Your task to perform on an android device: set the timer Image 0: 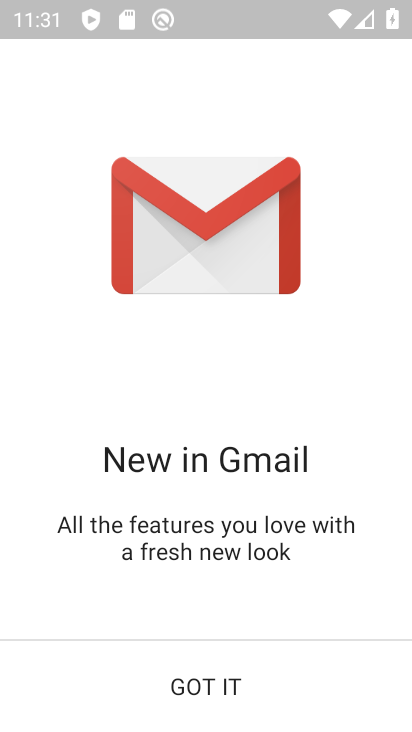
Step 0: press home button
Your task to perform on an android device: set the timer Image 1: 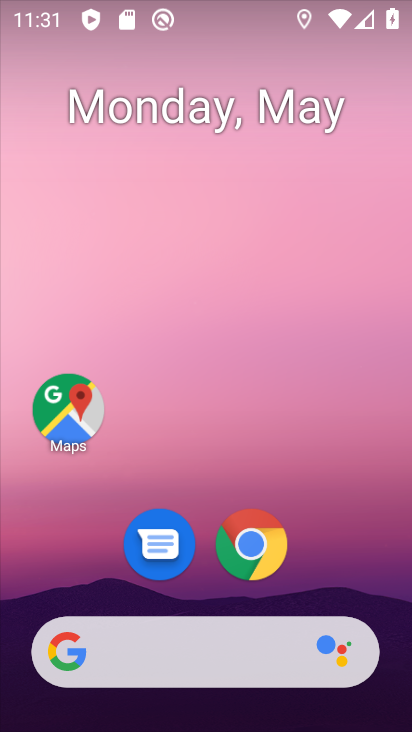
Step 1: drag from (332, 541) to (236, 41)
Your task to perform on an android device: set the timer Image 2: 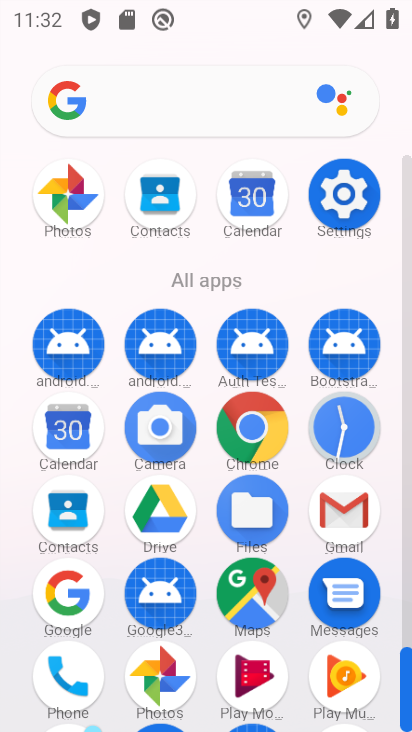
Step 2: click (348, 417)
Your task to perform on an android device: set the timer Image 3: 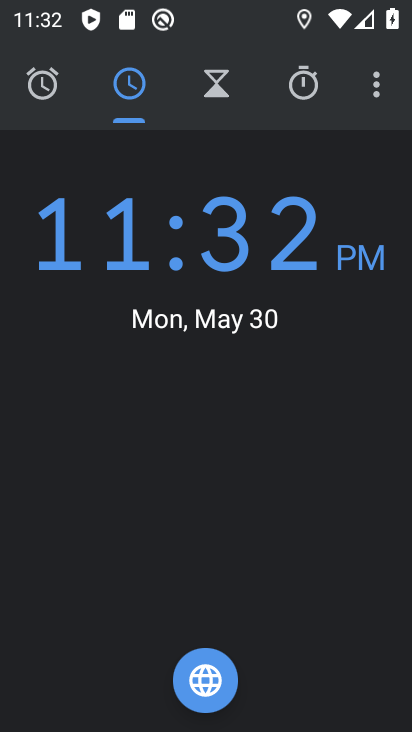
Step 3: click (212, 68)
Your task to perform on an android device: set the timer Image 4: 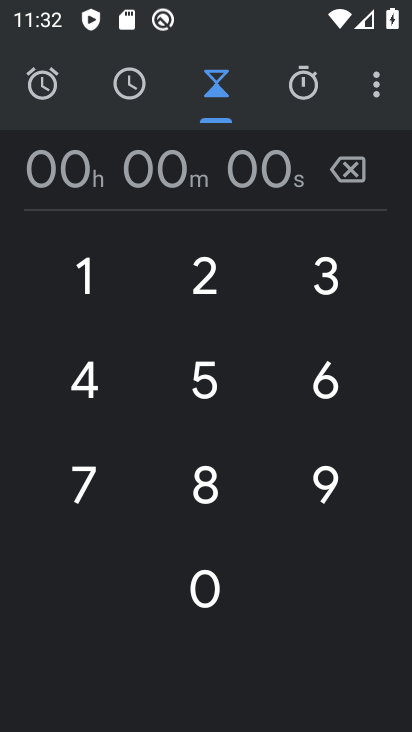
Step 4: click (92, 271)
Your task to perform on an android device: set the timer Image 5: 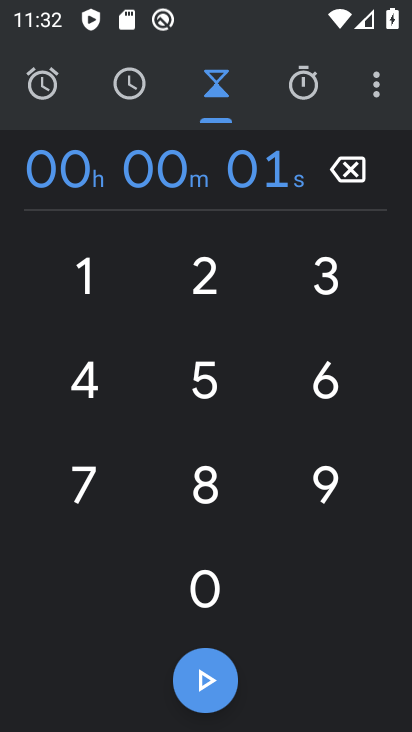
Step 5: click (92, 271)
Your task to perform on an android device: set the timer Image 6: 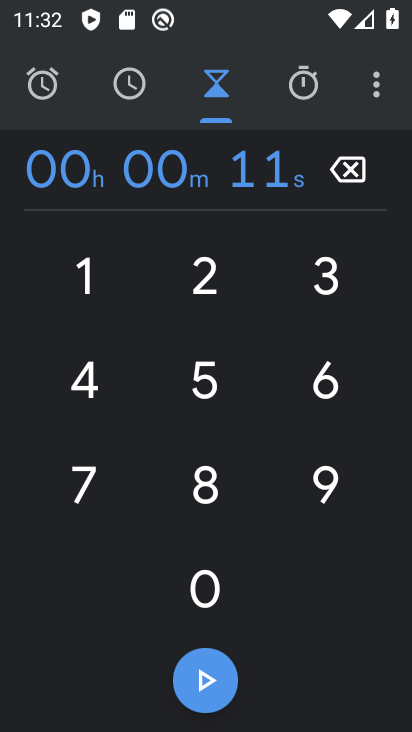
Step 6: click (92, 271)
Your task to perform on an android device: set the timer Image 7: 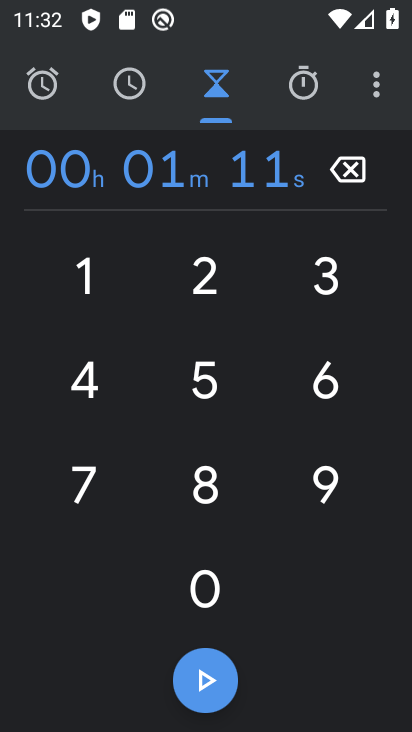
Step 7: click (92, 271)
Your task to perform on an android device: set the timer Image 8: 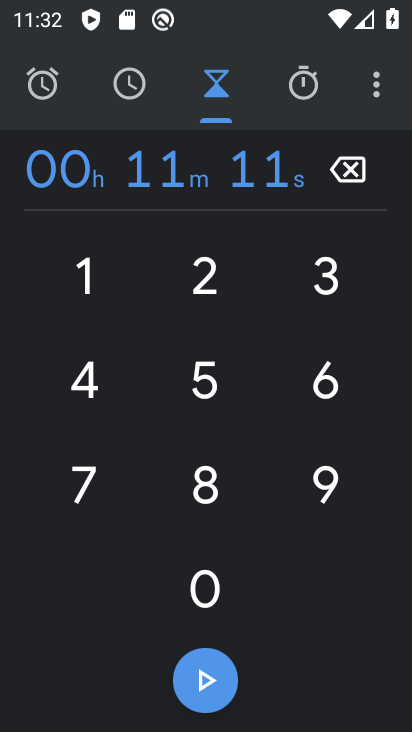
Step 8: click (92, 271)
Your task to perform on an android device: set the timer Image 9: 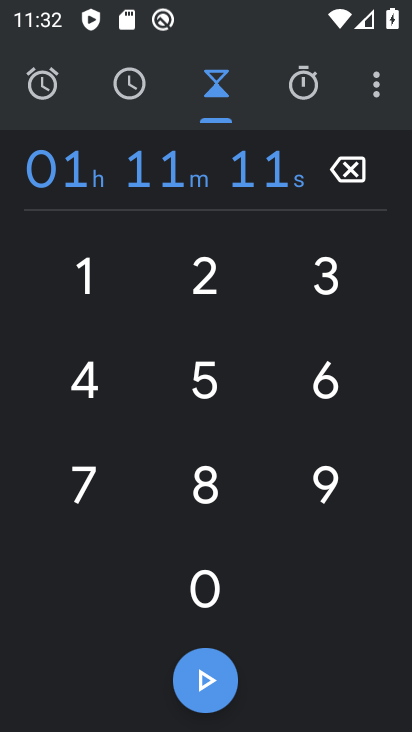
Step 9: click (92, 271)
Your task to perform on an android device: set the timer Image 10: 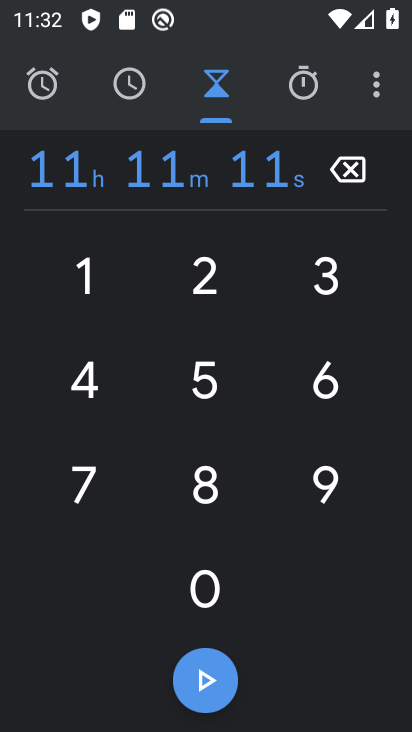
Step 10: task complete